Your task to perform on an android device: Open Google Chrome and open the bookmarks view Image 0: 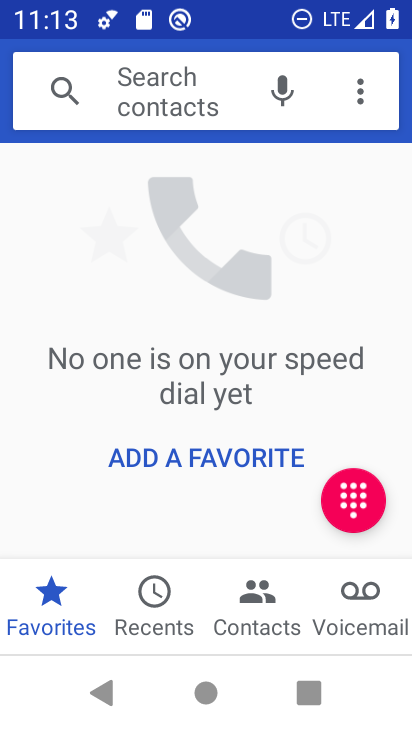
Step 0: press home button
Your task to perform on an android device: Open Google Chrome and open the bookmarks view Image 1: 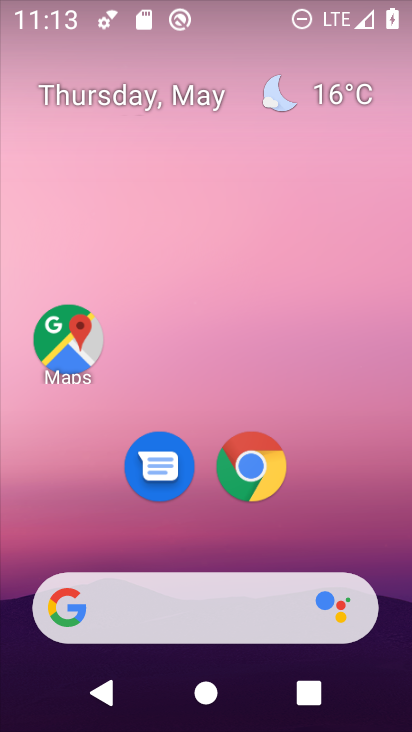
Step 1: drag from (316, 494) to (357, 218)
Your task to perform on an android device: Open Google Chrome and open the bookmarks view Image 2: 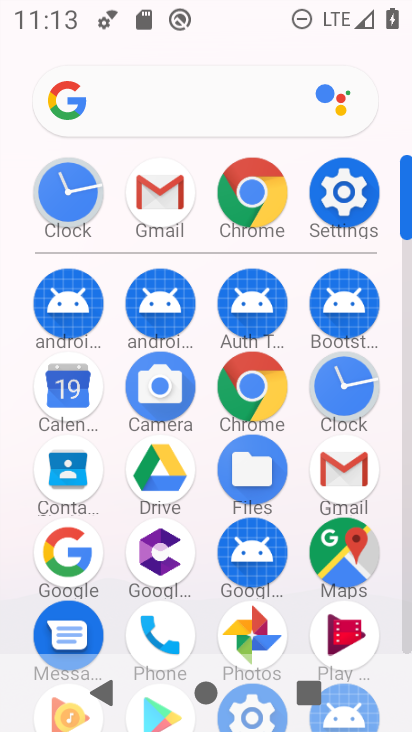
Step 2: click (234, 195)
Your task to perform on an android device: Open Google Chrome and open the bookmarks view Image 3: 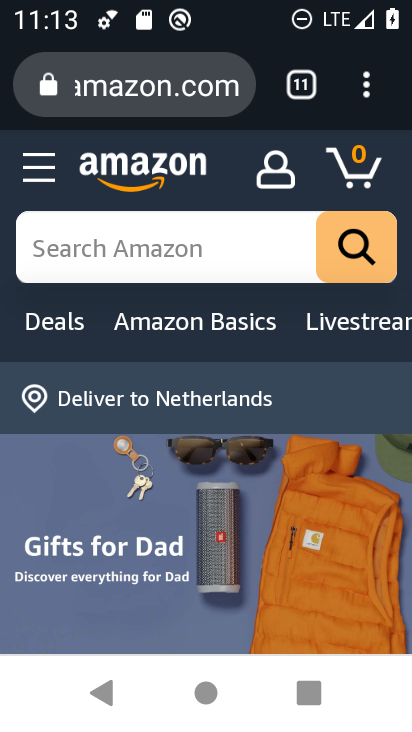
Step 3: click (367, 79)
Your task to perform on an android device: Open Google Chrome and open the bookmarks view Image 4: 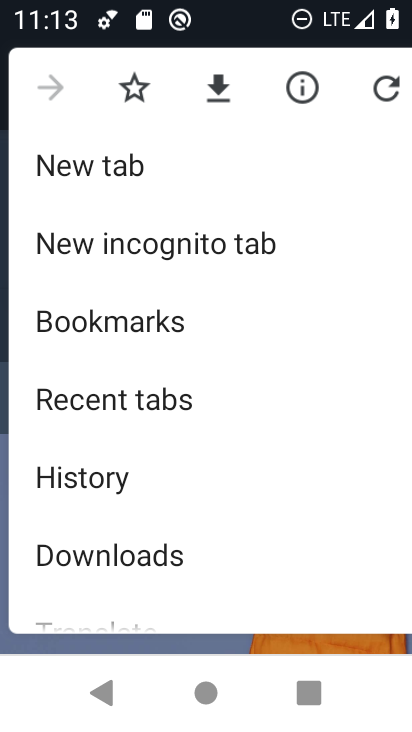
Step 4: click (143, 313)
Your task to perform on an android device: Open Google Chrome and open the bookmarks view Image 5: 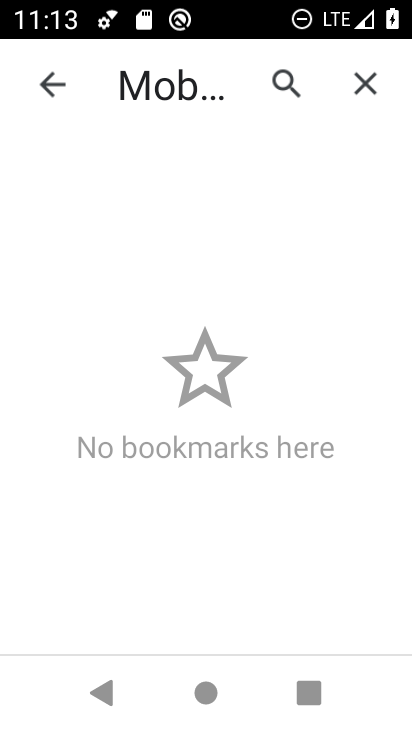
Step 5: task complete